Your task to perform on an android device: Go to Android settings Image 0: 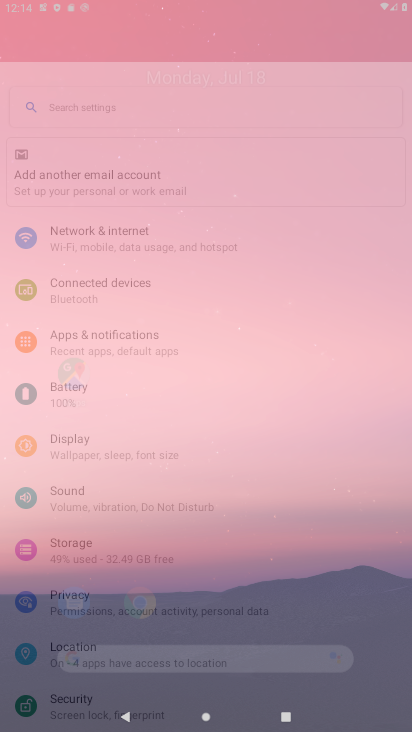
Step 0: press home button
Your task to perform on an android device: Go to Android settings Image 1: 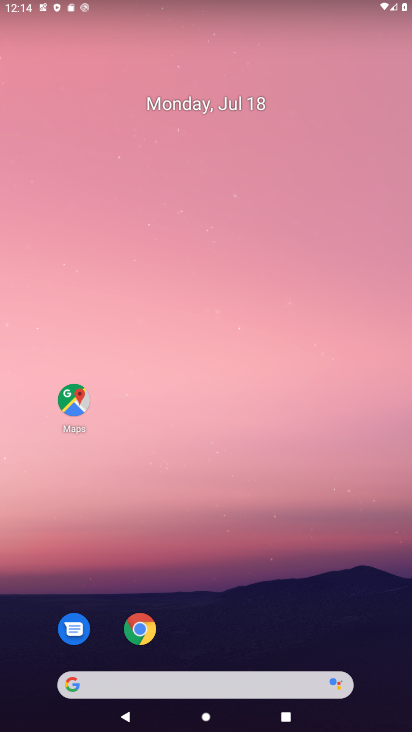
Step 1: drag from (218, 660) to (234, 46)
Your task to perform on an android device: Go to Android settings Image 2: 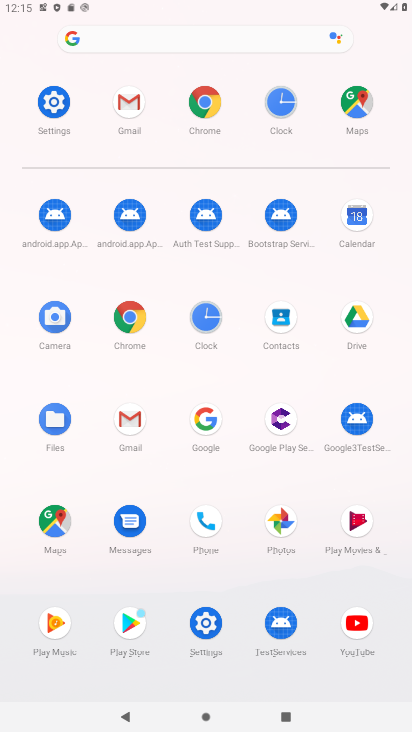
Step 2: click (206, 618)
Your task to perform on an android device: Go to Android settings Image 3: 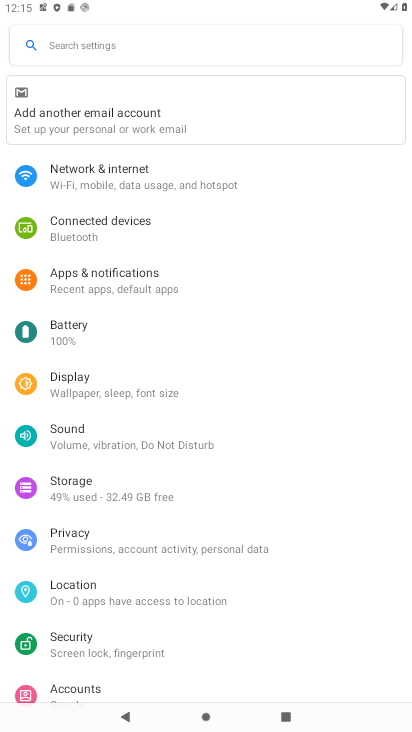
Step 3: drag from (148, 657) to (163, 87)
Your task to perform on an android device: Go to Android settings Image 4: 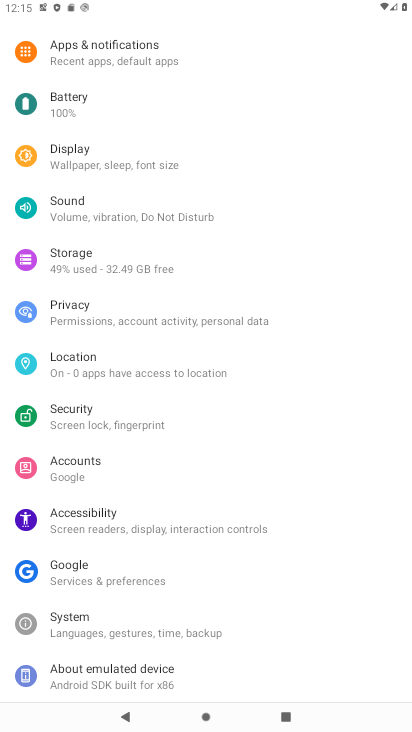
Step 4: click (183, 679)
Your task to perform on an android device: Go to Android settings Image 5: 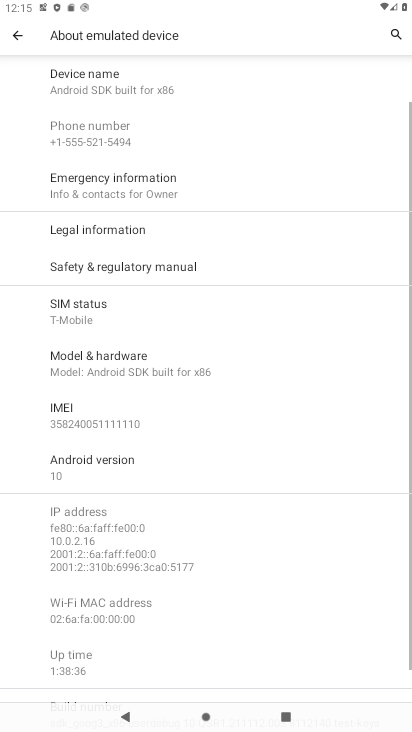
Step 5: click (99, 470)
Your task to perform on an android device: Go to Android settings Image 6: 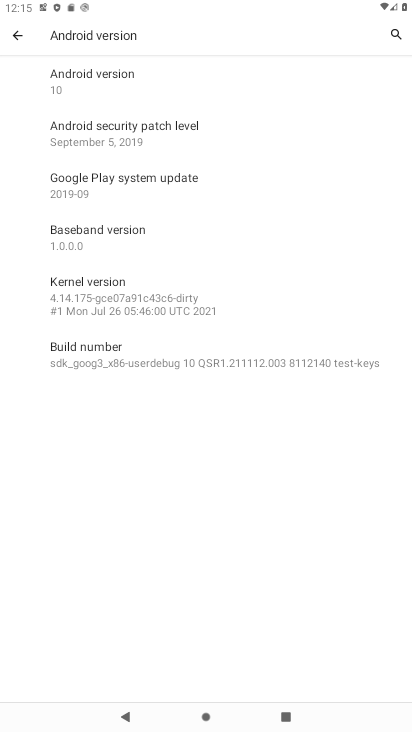
Step 6: task complete